Your task to perform on an android device: find snoozed emails in the gmail app Image 0: 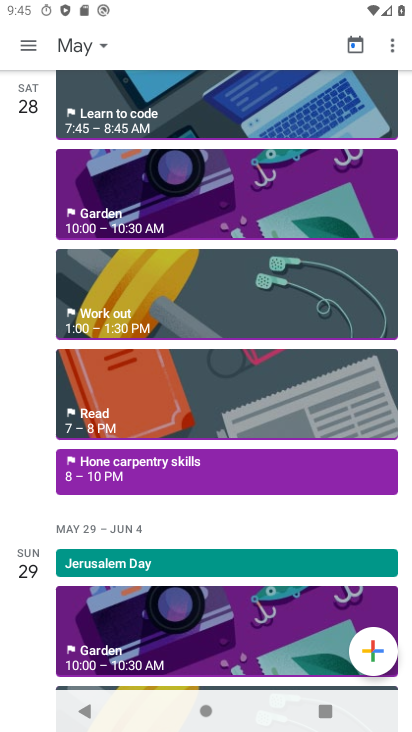
Step 0: press home button
Your task to perform on an android device: find snoozed emails in the gmail app Image 1: 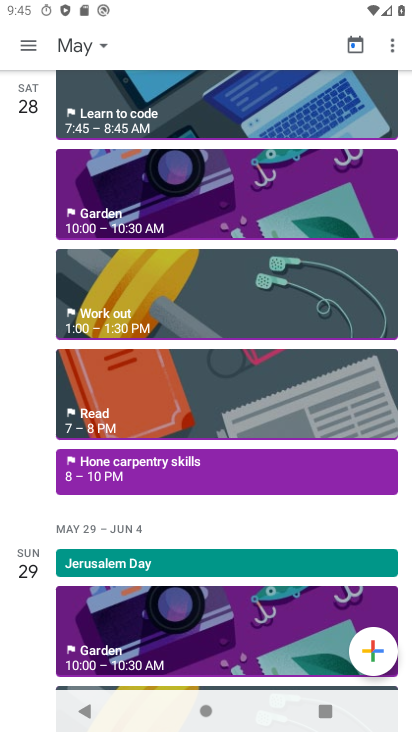
Step 1: press home button
Your task to perform on an android device: find snoozed emails in the gmail app Image 2: 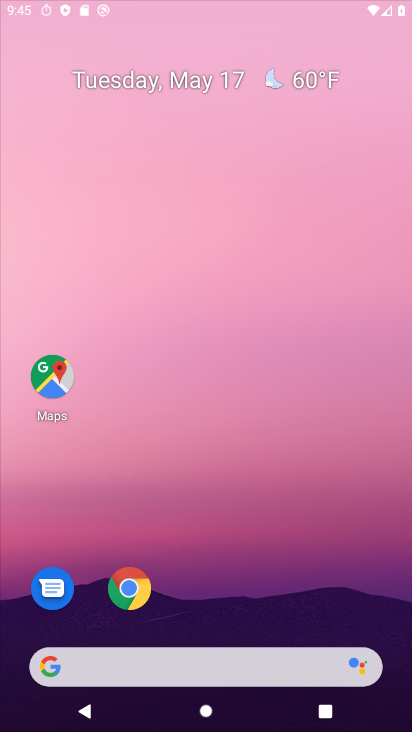
Step 2: press home button
Your task to perform on an android device: find snoozed emails in the gmail app Image 3: 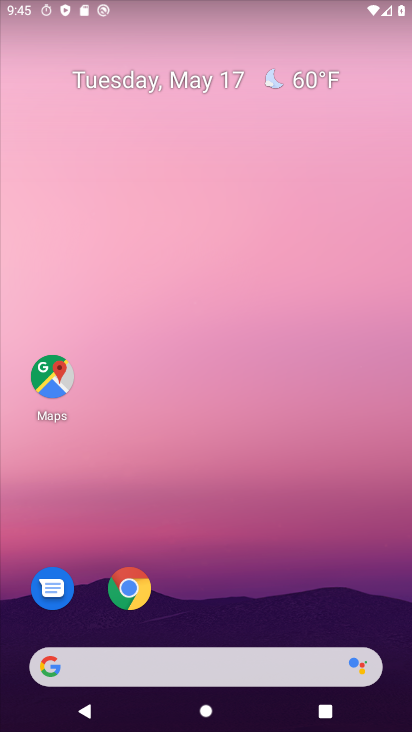
Step 3: drag from (257, 690) to (133, 44)
Your task to perform on an android device: find snoozed emails in the gmail app Image 4: 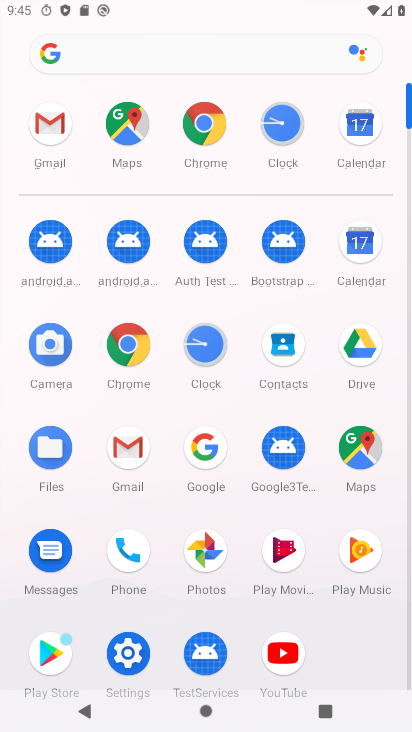
Step 4: click (123, 447)
Your task to perform on an android device: find snoozed emails in the gmail app Image 5: 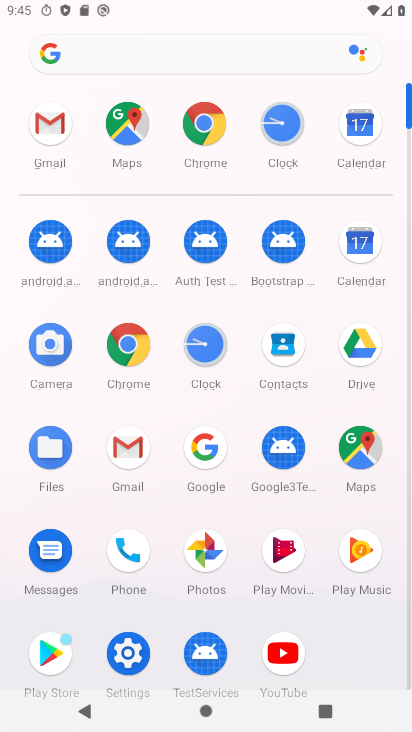
Step 5: click (123, 447)
Your task to perform on an android device: find snoozed emails in the gmail app Image 6: 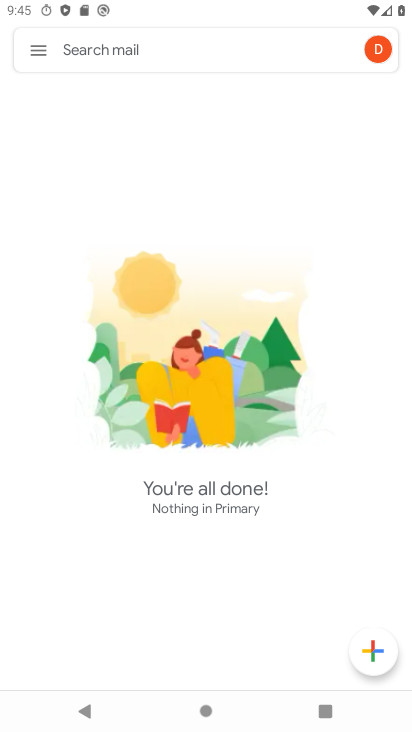
Step 6: click (40, 48)
Your task to perform on an android device: find snoozed emails in the gmail app Image 7: 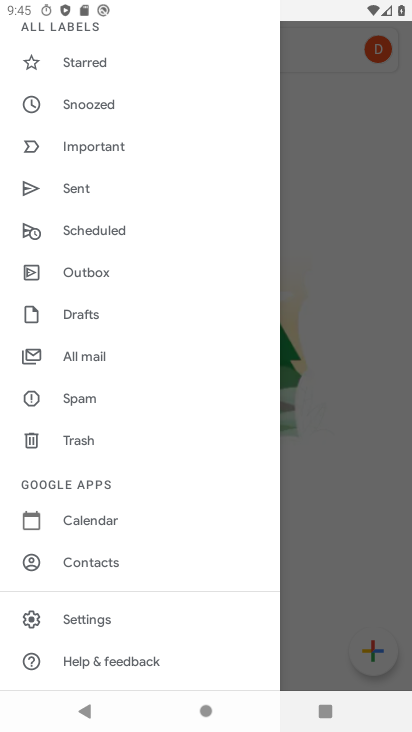
Step 7: click (89, 103)
Your task to perform on an android device: find snoozed emails in the gmail app Image 8: 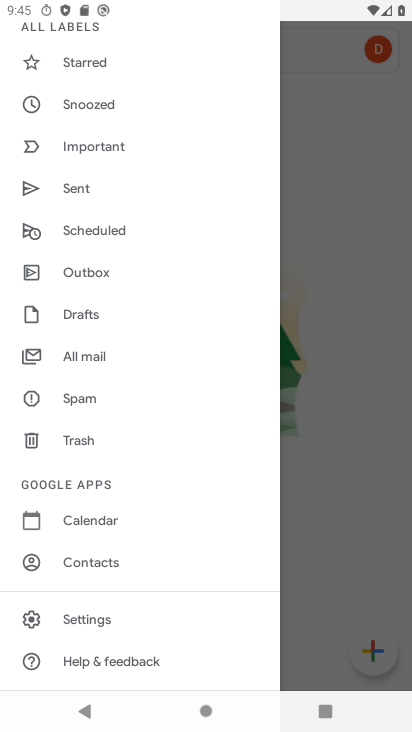
Step 8: click (89, 103)
Your task to perform on an android device: find snoozed emails in the gmail app Image 9: 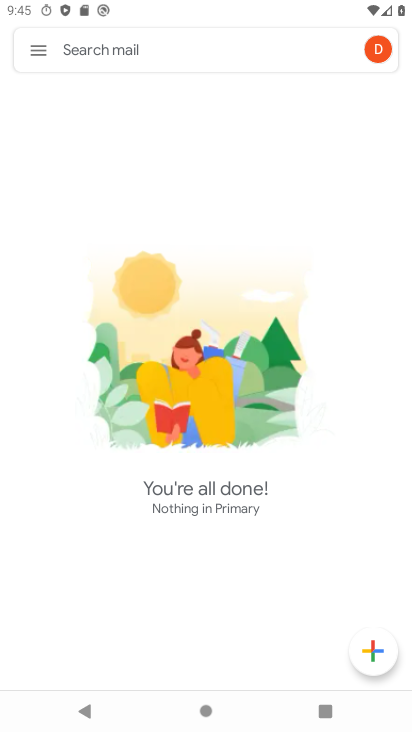
Step 9: click (90, 103)
Your task to perform on an android device: find snoozed emails in the gmail app Image 10: 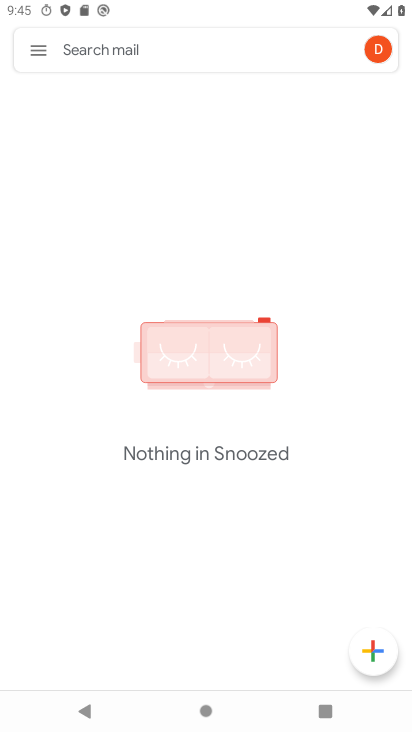
Step 10: task complete